Your task to perform on an android device: Open Chrome and go to settings Image 0: 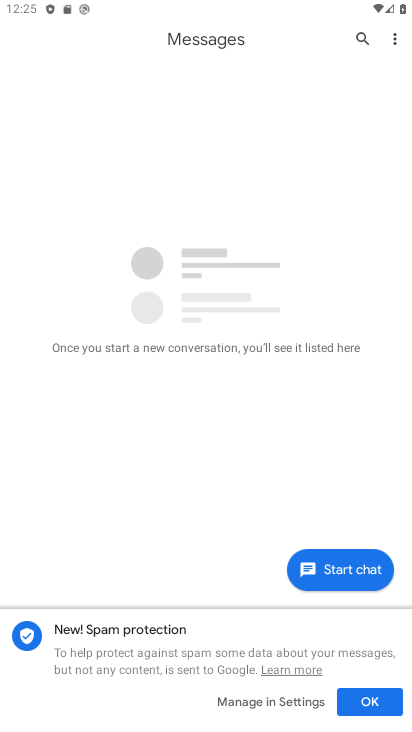
Step 0: press home button
Your task to perform on an android device: Open Chrome and go to settings Image 1: 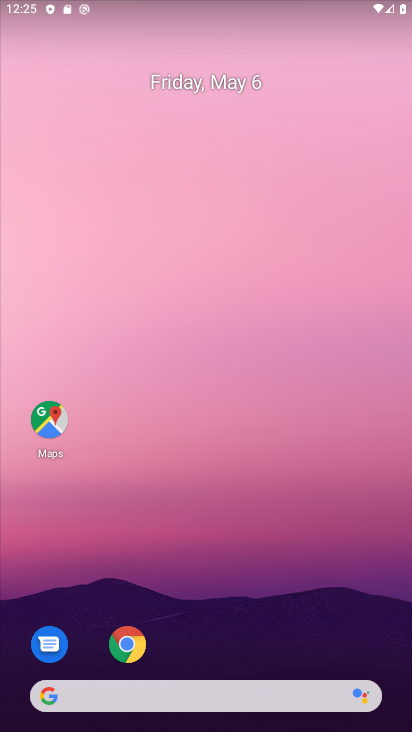
Step 1: drag from (266, 658) to (219, 11)
Your task to perform on an android device: Open Chrome and go to settings Image 2: 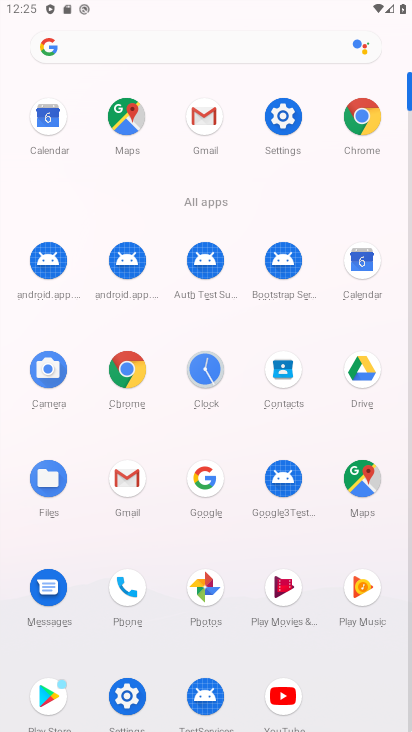
Step 2: click (123, 378)
Your task to perform on an android device: Open Chrome and go to settings Image 3: 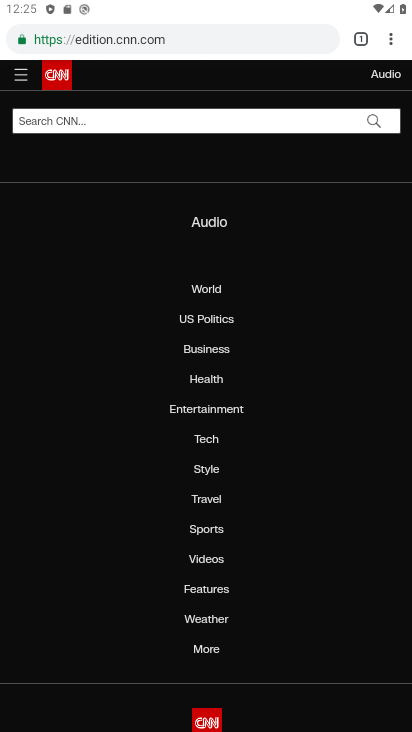
Step 3: task complete